Your task to perform on an android device: Open wifi settings Image 0: 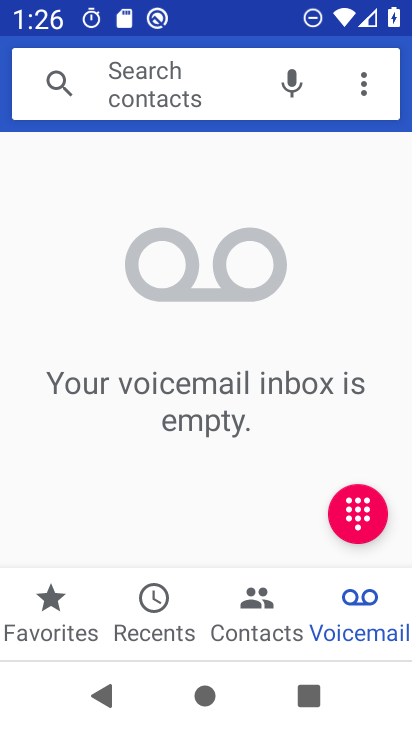
Step 0: press home button
Your task to perform on an android device: Open wifi settings Image 1: 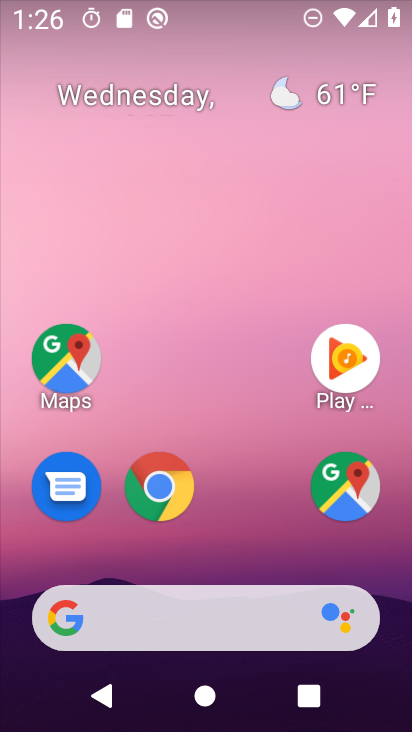
Step 1: drag from (299, 534) to (303, 178)
Your task to perform on an android device: Open wifi settings Image 2: 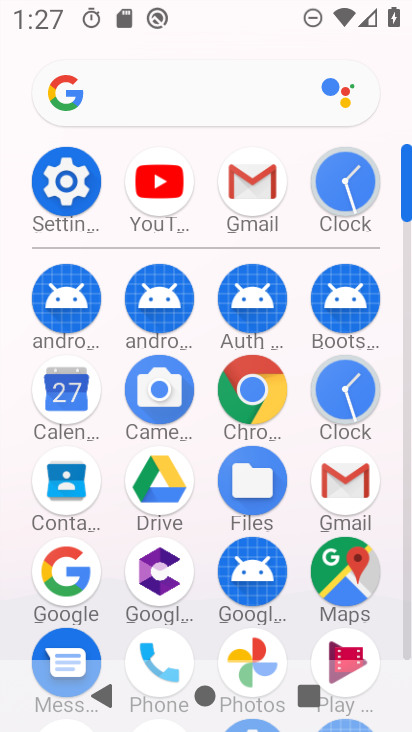
Step 2: click (54, 204)
Your task to perform on an android device: Open wifi settings Image 3: 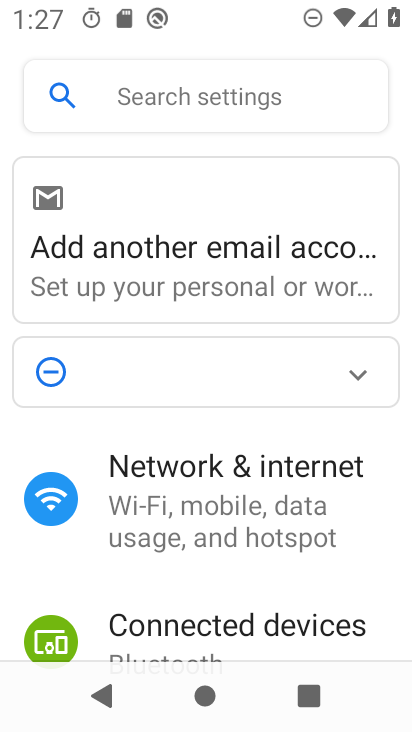
Step 3: drag from (371, 534) to (375, 467)
Your task to perform on an android device: Open wifi settings Image 4: 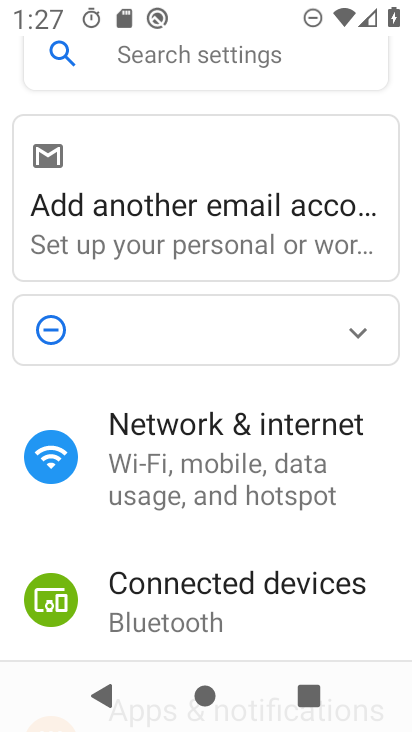
Step 4: drag from (383, 627) to (372, 530)
Your task to perform on an android device: Open wifi settings Image 5: 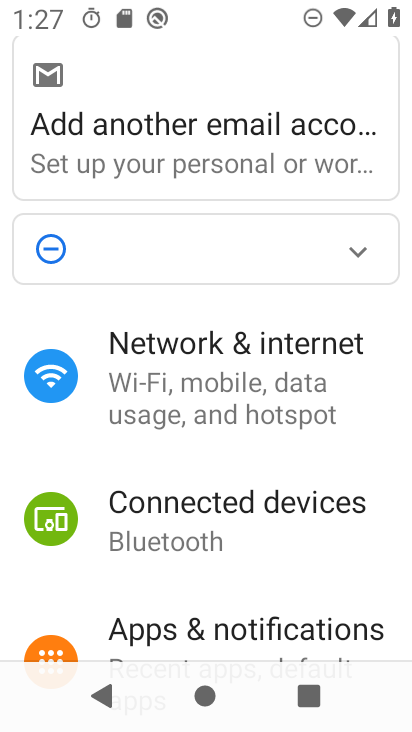
Step 5: drag from (363, 571) to (367, 478)
Your task to perform on an android device: Open wifi settings Image 6: 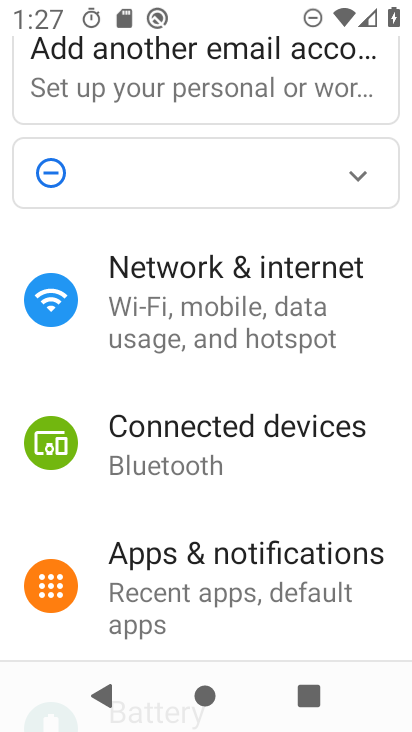
Step 6: drag from (377, 644) to (366, 540)
Your task to perform on an android device: Open wifi settings Image 7: 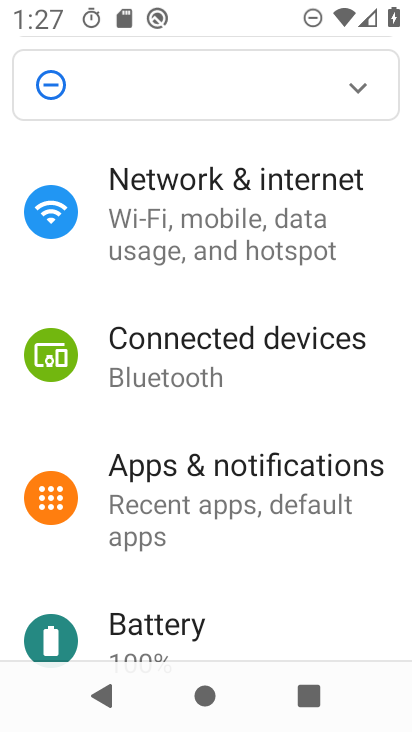
Step 7: drag from (356, 648) to (349, 551)
Your task to perform on an android device: Open wifi settings Image 8: 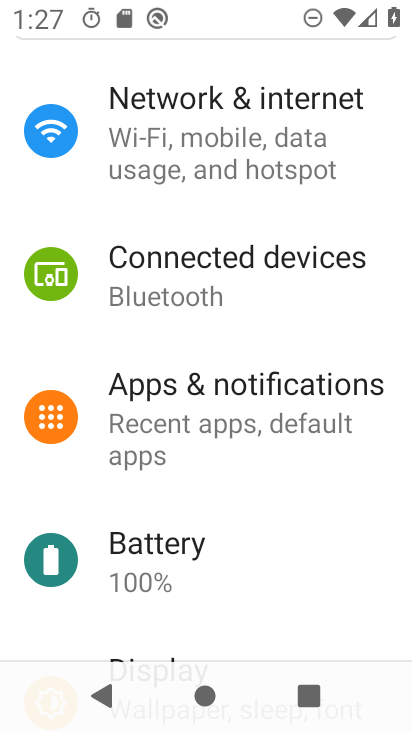
Step 8: drag from (337, 601) to (335, 484)
Your task to perform on an android device: Open wifi settings Image 9: 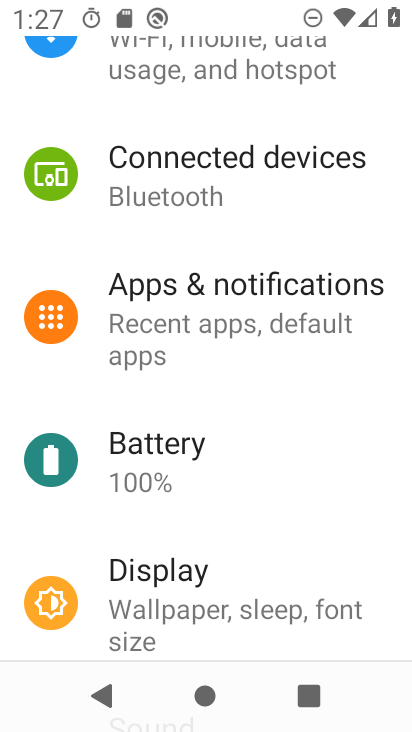
Step 9: drag from (322, 539) to (323, 445)
Your task to perform on an android device: Open wifi settings Image 10: 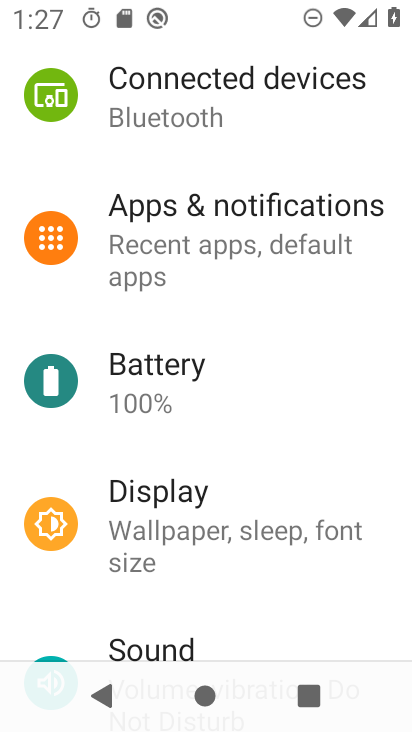
Step 10: drag from (347, 600) to (343, 483)
Your task to perform on an android device: Open wifi settings Image 11: 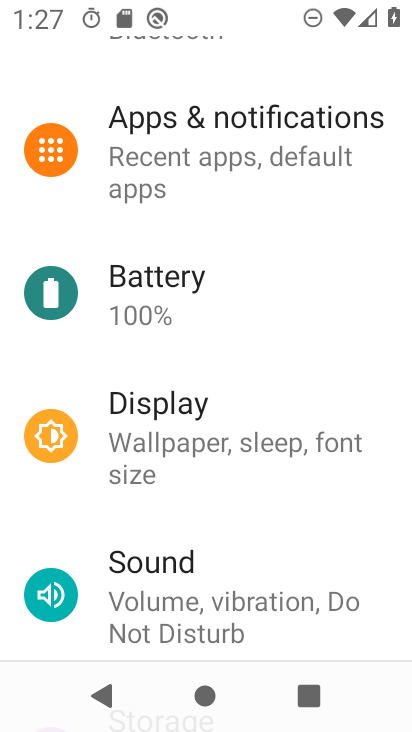
Step 11: drag from (366, 650) to (364, 524)
Your task to perform on an android device: Open wifi settings Image 12: 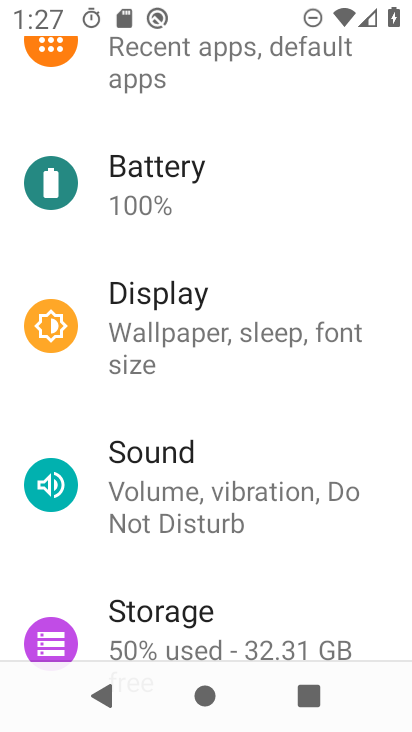
Step 12: drag from (359, 344) to (353, 433)
Your task to perform on an android device: Open wifi settings Image 13: 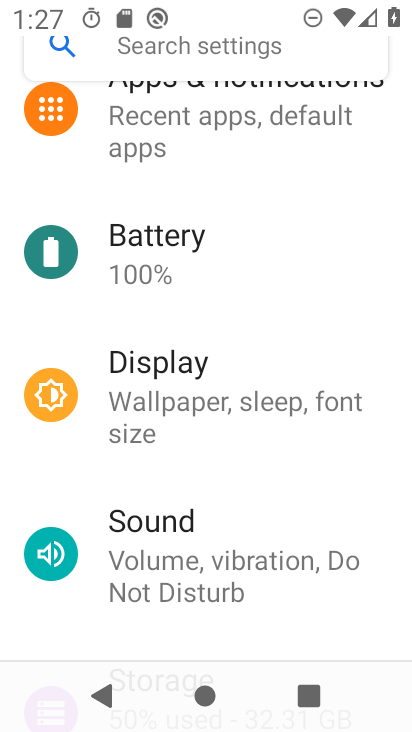
Step 13: drag from (364, 310) to (357, 406)
Your task to perform on an android device: Open wifi settings Image 14: 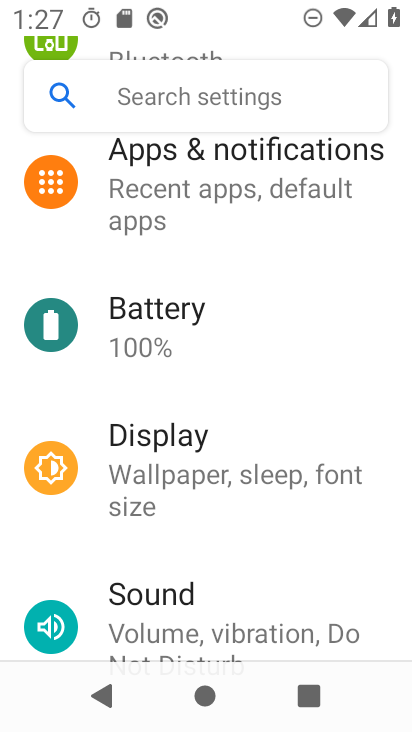
Step 14: drag from (363, 301) to (357, 378)
Your task to perform on an android device: Open wifi settings Image 15: 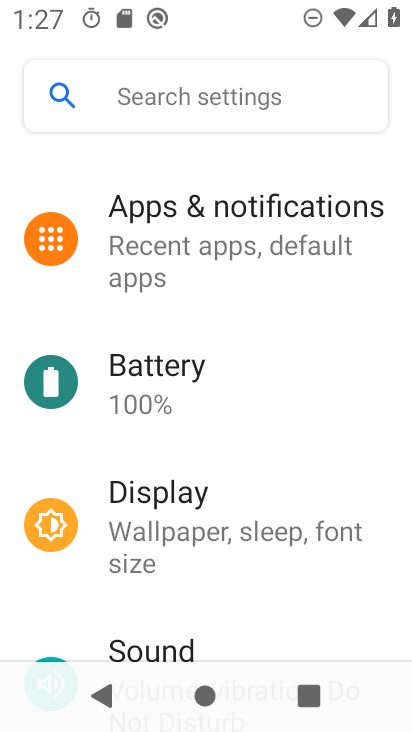
Step 15: drag from (356, 354) to (360, 434)
Your task to perform on an android device: Open wifi settings Image 16: 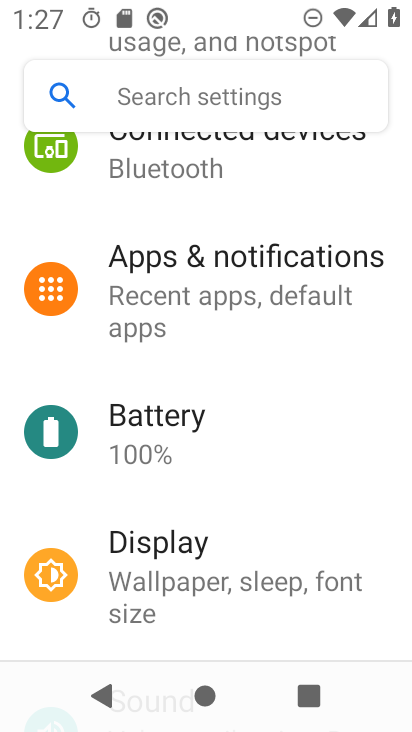
Step 16: drag from (354, 377) to (343, 458)
Your task to perform on an android device: Open wifi settings Image 17: 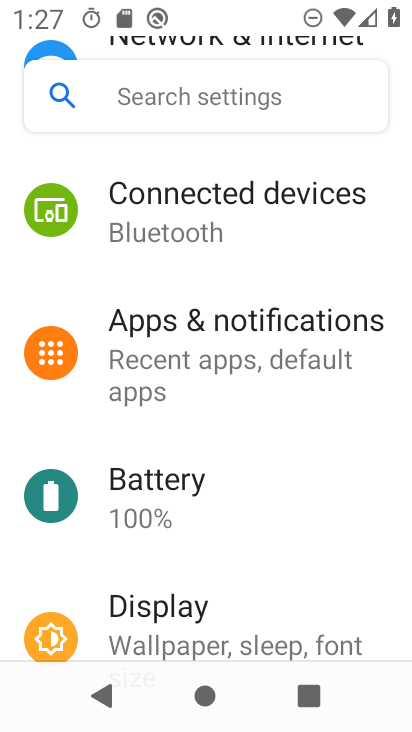
Step 17: drag from (377, 363) to (373, 486)
Your task to perform on an android device: Open wifi settings Image 18: 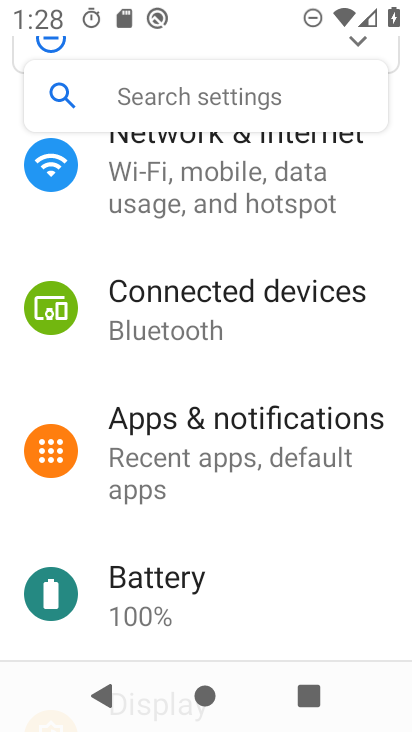
Step 18: drag from (343, 308) to (347, 455)
Your task to perform on an android device: Open wifi settings Image 19: 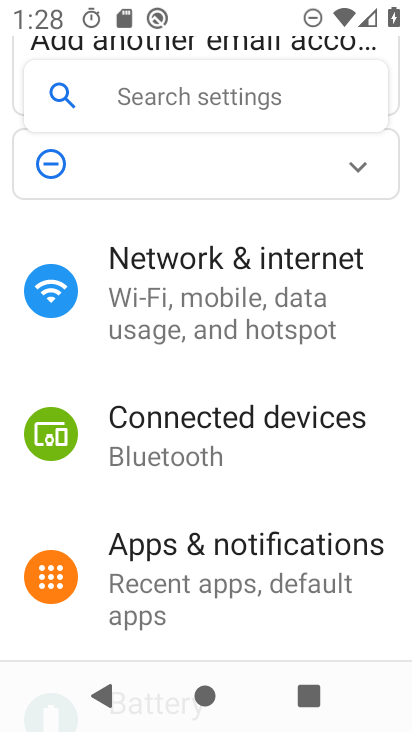
Step 19: click (256, 309)
Your task to perform on an android device: Open wifi settings Image 20: 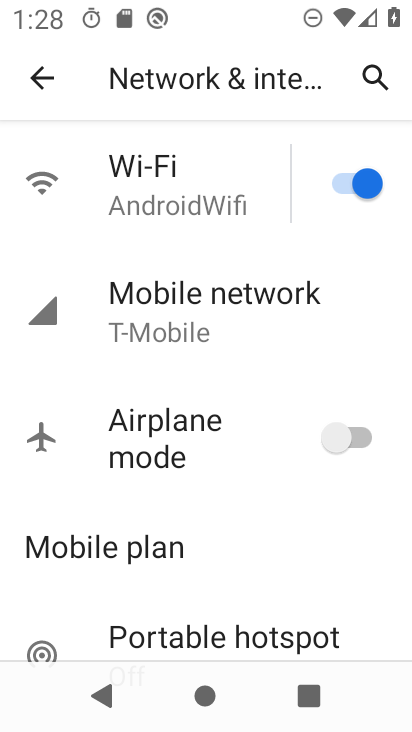
Step 20: click (181, 189)
Your task to perform on an android device: Open wifi settings Image 21: 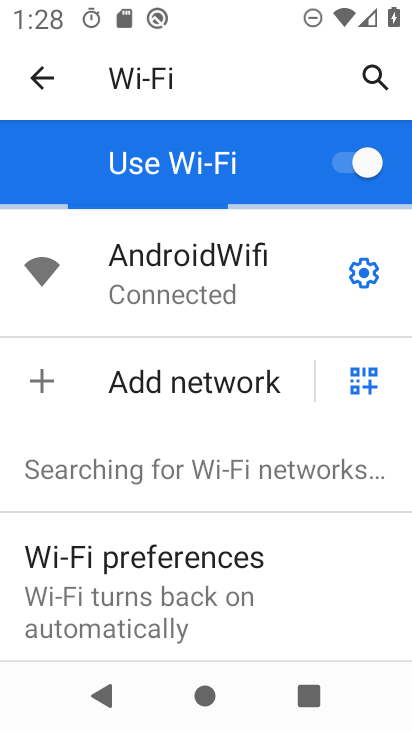
Step 21: task complete